Your task to perform on an android device: clear history in the chrome app Image 0: 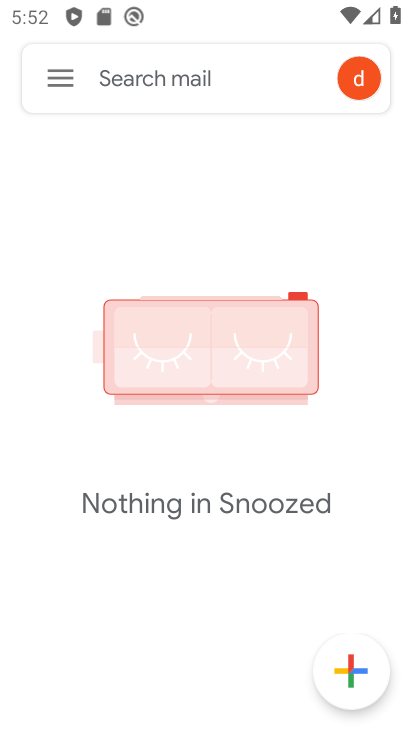
Step 0: press home button
Your task to perform on an android device: clear history in the chrome app Image 1: 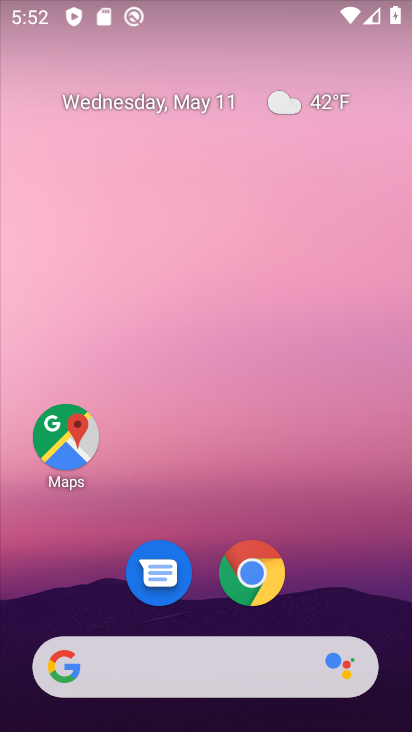
Step 1: click (260, 582)
Your task to perform on an android device: clear history in the chrome app Image 2: 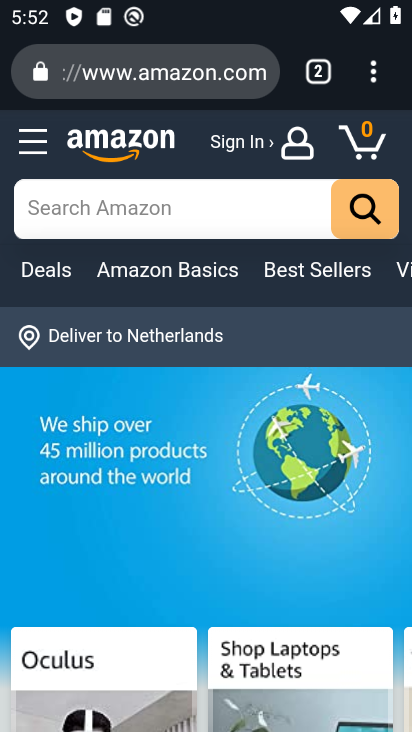
Step 2: click (365, 78)
Your task to perform on an android device: clear history in the chrome app Image 3: 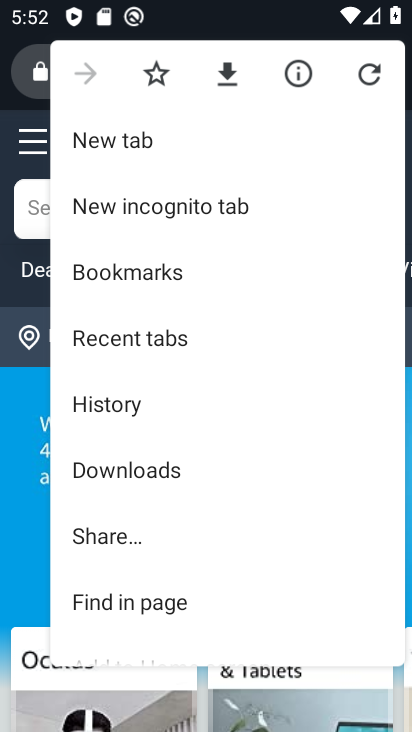
Step 3: click (136, 410)
Your task to perform on an android device: clear history in the chrome app Image 4: 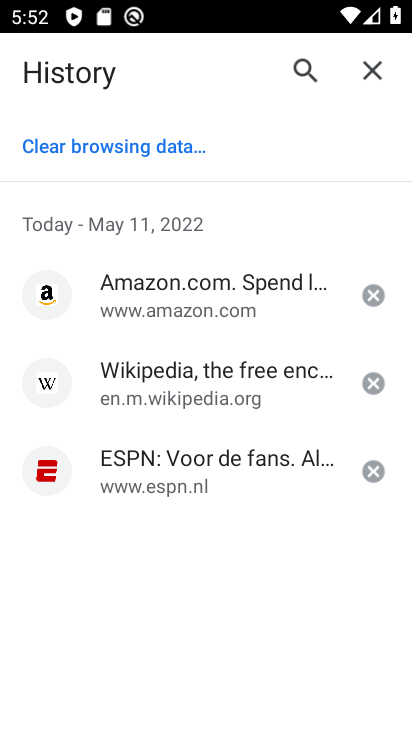
Step 4: click (118, 146)
Your task to perform on an android device: clear history in the chrome app Image 5: 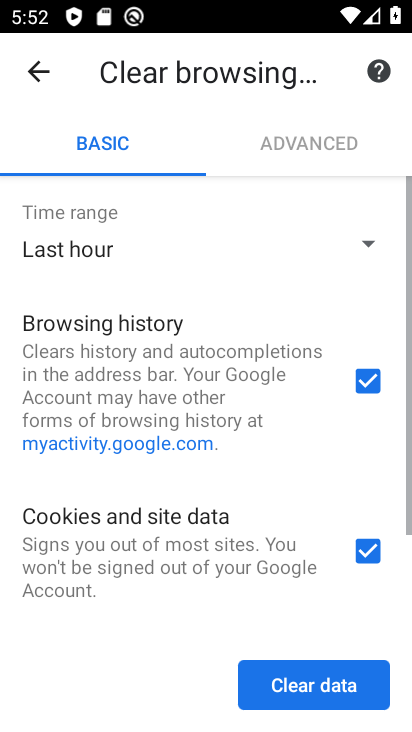
Step 5: drag from (237, 502) to (242, 352)
Your task to perform on an android device: clear history in the chrome app Image 6: 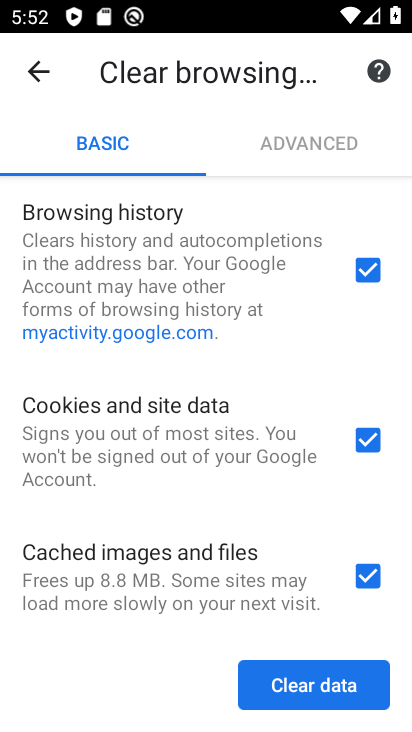
Step 6: click (309, 686)
Your task to perform on an android device: clear history in the chrome app Image 7: 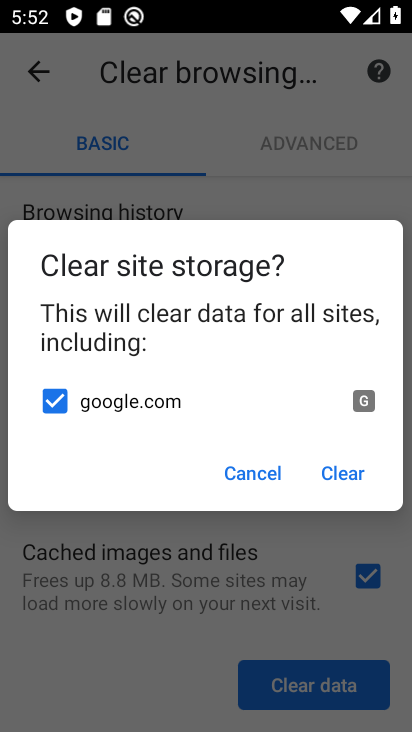
Step 7: click (357, 471)
Your task to perform on an android device: clear history in the chrome app Image 8: 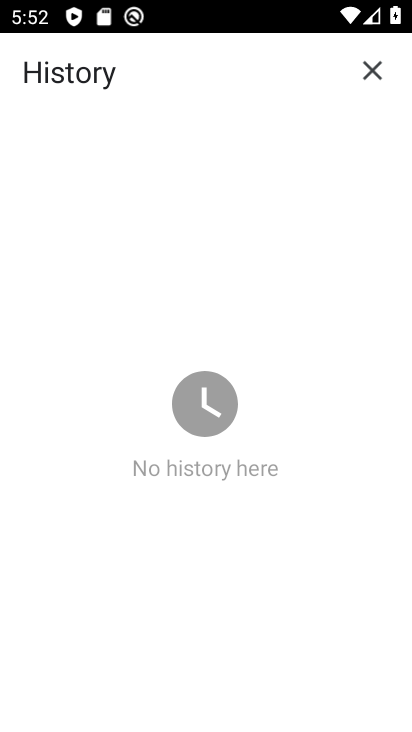
Step 8: task complete